Your task to perform on an android device: turn off smart reply in the gmail app Image 0: 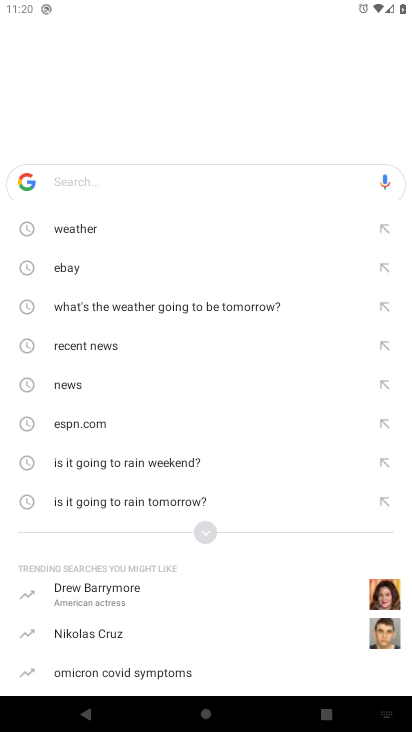
Step 0: press home button
Your task to perform on an android device: turn off smart reply in the gmail app Image 1: 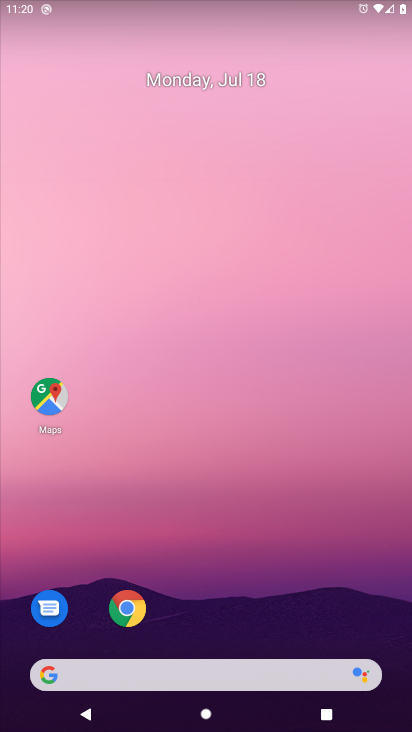
Step 1: drag from (18, 705) to (232, 239)
Your task to perform on an android device: turn off smart reply in the gmail app Image 2: 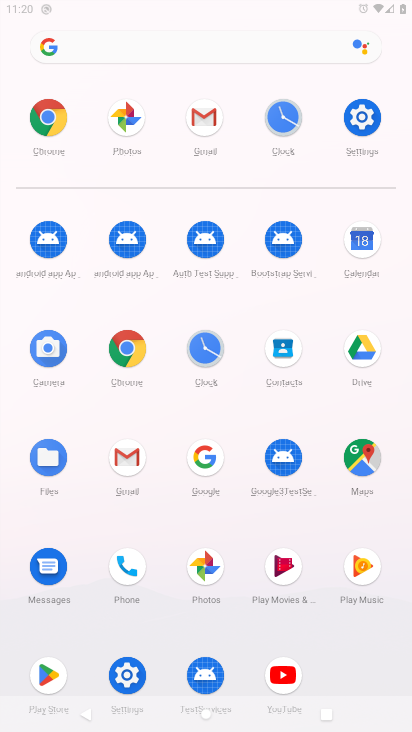
Step 2: drag from (40, 719) to (224, 285)
Your task to perform on an android device: turn off smart reply in the gmail app Image 3: 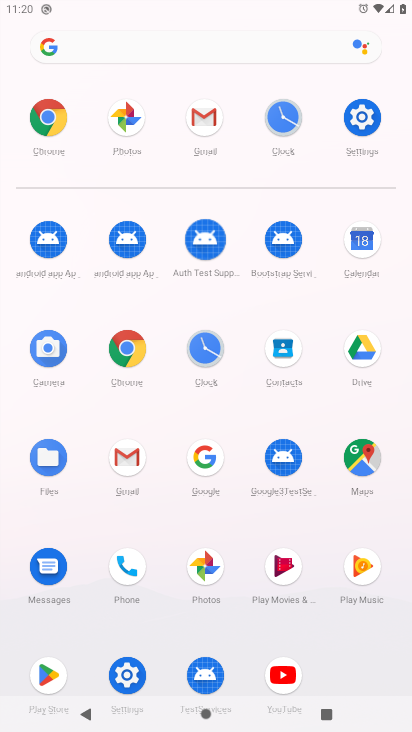
Step 3: click (125, 464)
Your task to perform on an android device: turn off smart reply in the gmail app Image 4: 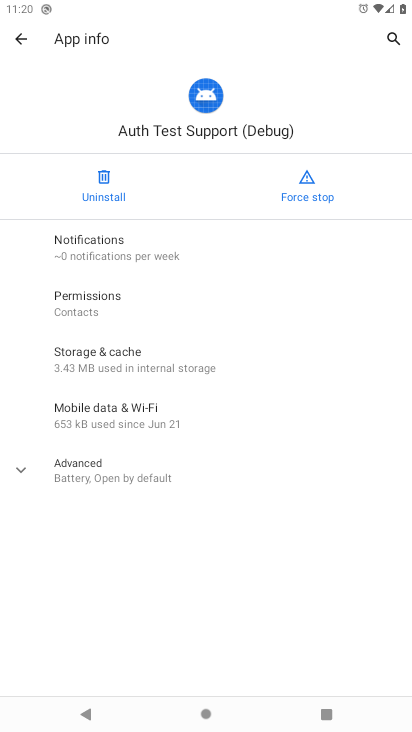
Step 4: click (19, 33)
Your task to perform on an android device: turn off smart reply in the gmail app Image 5: 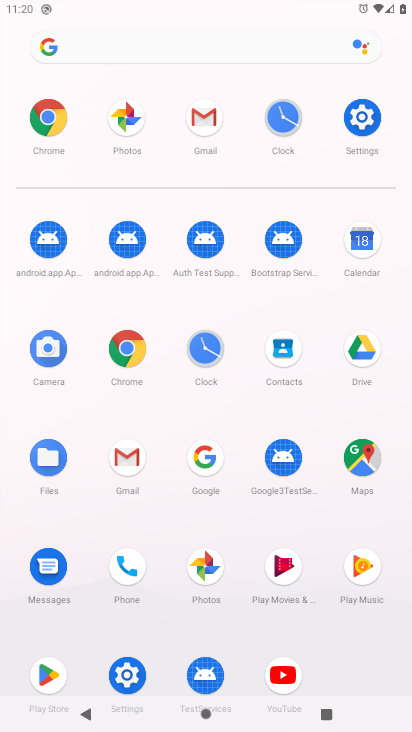
Step 5: click (145, 453)
Your task to perform on an android device: turn off smart reply in the gmail app Image 6: 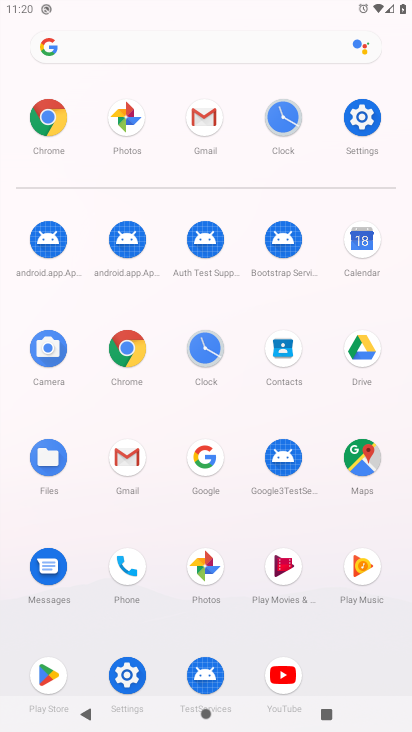
Step 6: click (138, 460)
Your task to perform on an android device: turn off smart reply in the gmail app Image 7: 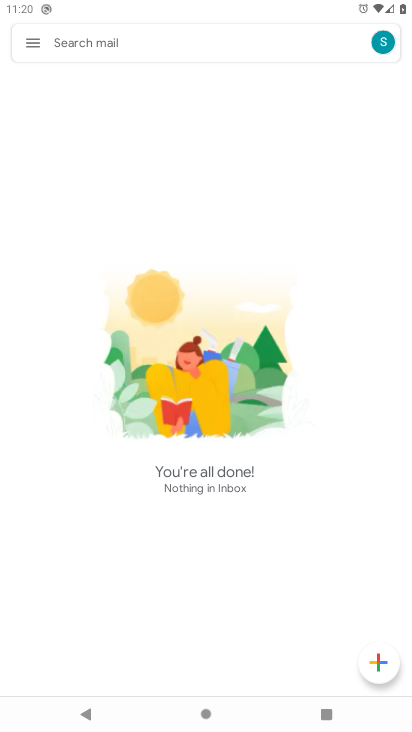
Step 7: click (31, 40)
Your task to perform on an android device: turn off smart reply in the gmail app Image 8: 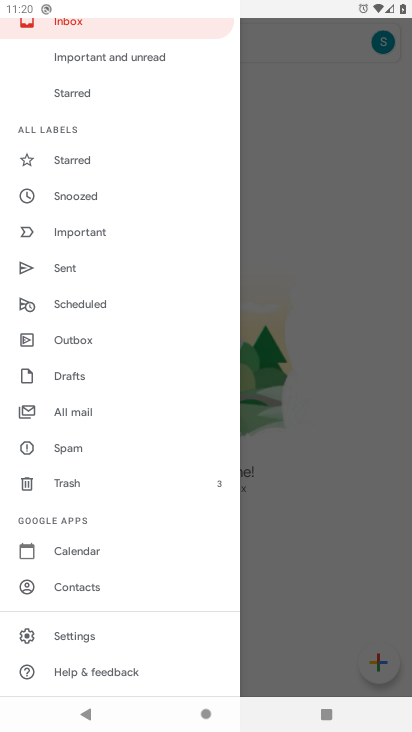
Step 8: click (62, 629)
Your task to perform on an android device: turn off smart reply in the gmail app Image 9: 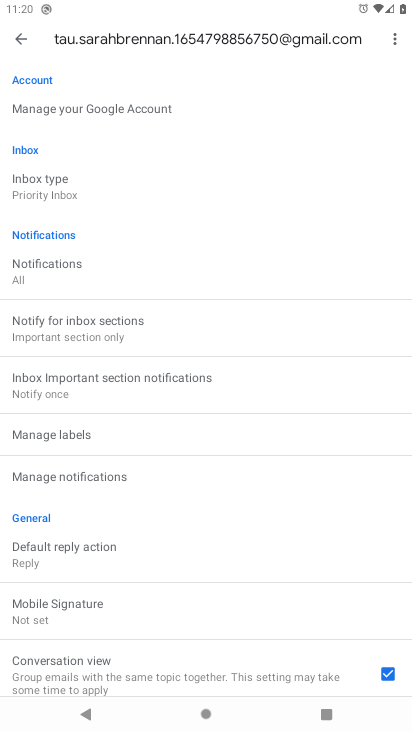
Step 9: task complete